Your task to perform on an android device: Open Yahoo.com Image 0: 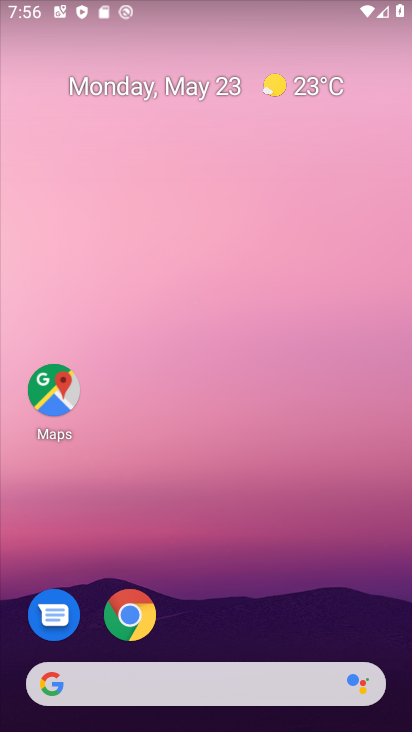
Step 0: click (129, 614)
Your task to perform on an android device: Open Yahoo.com Image 1: 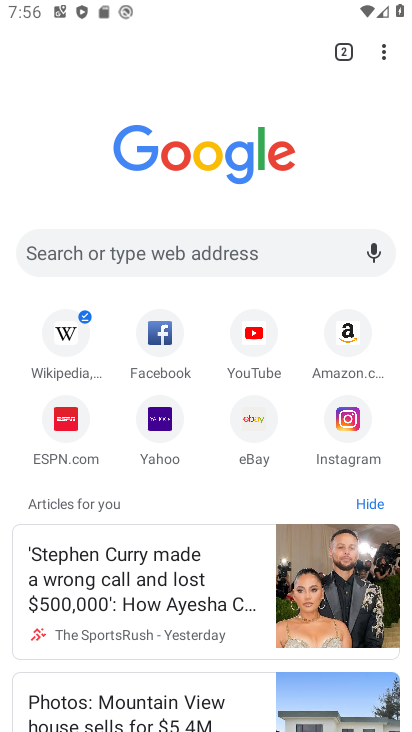
Step 1: click (241, 250)
Your task to perform on an android device: Open Yahoo.com Image 2: 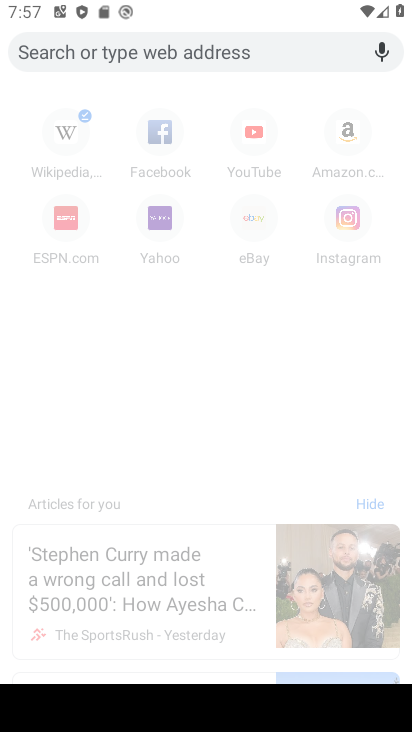
Step 2: type "Yahoo.com"
Your task to perform on an android device: Open Yahoo.com Image 3: 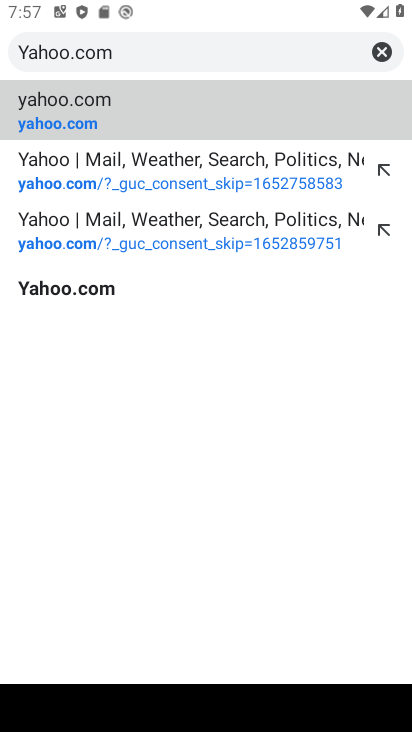
Step 3: click (80, 300)
Your task to perform on an android device: Open Yahoo.com Image 4: 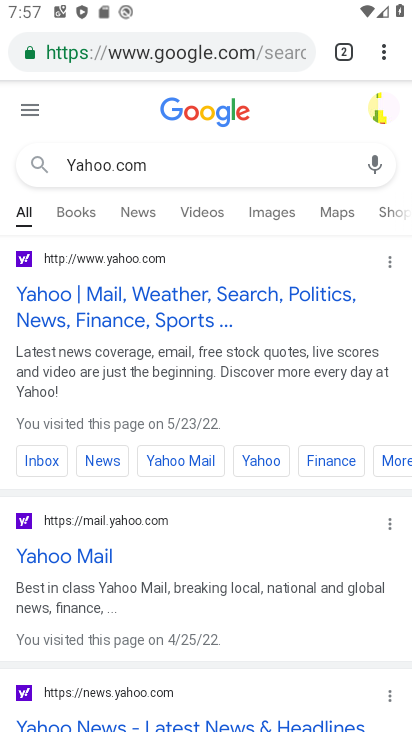
Step 4: click (169, 296)
Your task to perform on an android device: Open Yahoo.com Image 5: 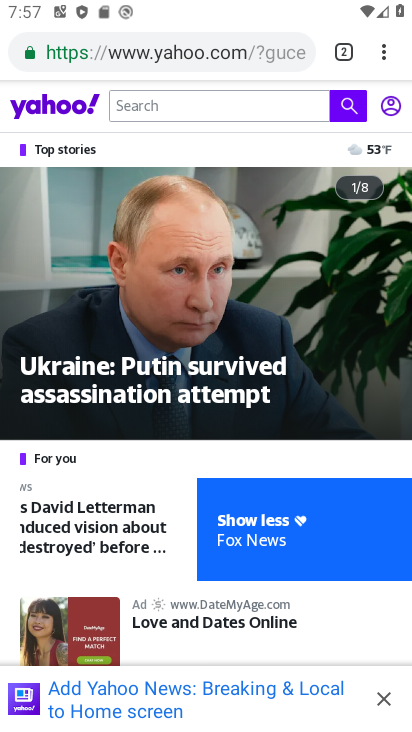
Step 5: task complete